Your task to perform on an android device: Open Reddit.com Image 0: 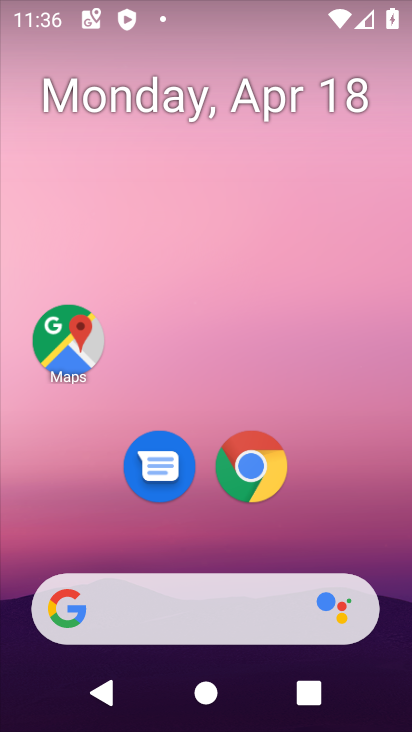
Step 0: drag from (223, 644) to (227, 120)
Your task to perform on an android device: Open Reddit.com Image 1: 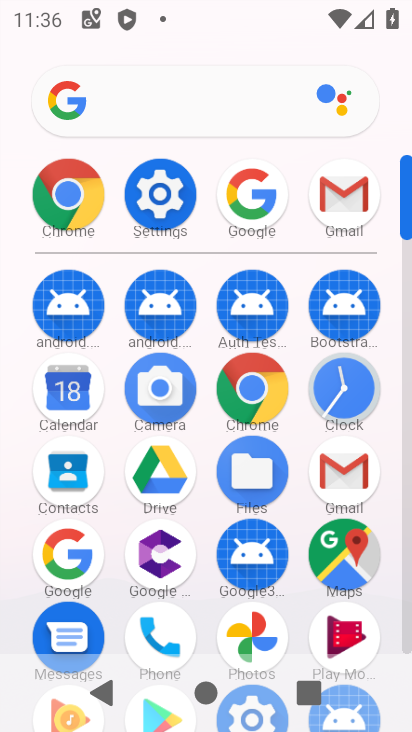
Step 1: click (75, 219)
Your task to perform on an android device: Open Reddit.com Image 2: 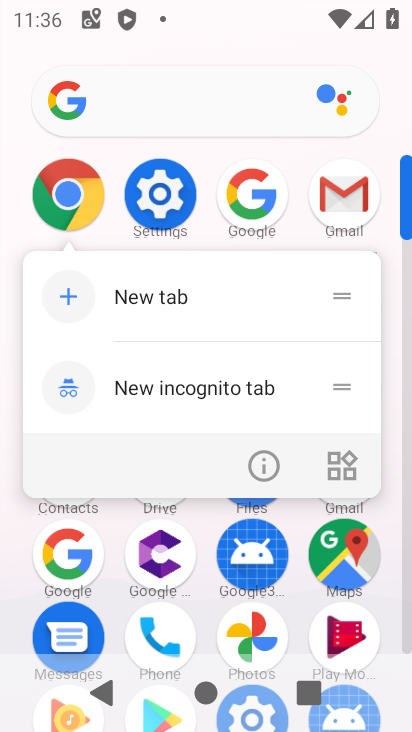
Step 2: click (90, 196)
Your task to perform on an android device: Open Reddit.com Image 3: 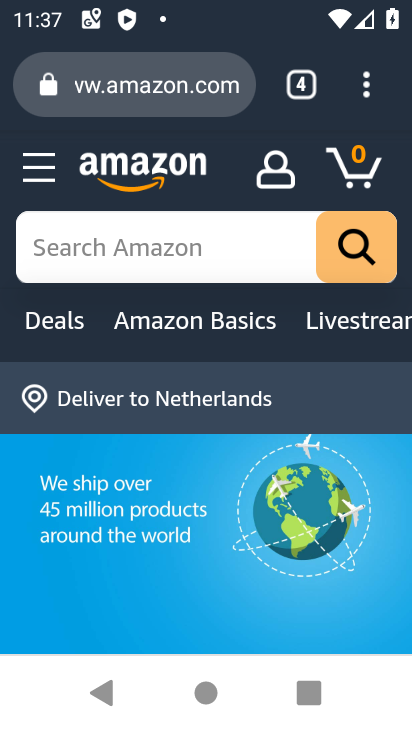
Step 3: click (176, 89)
Your task to perform on an android device: Open Reddit.com Image 4: 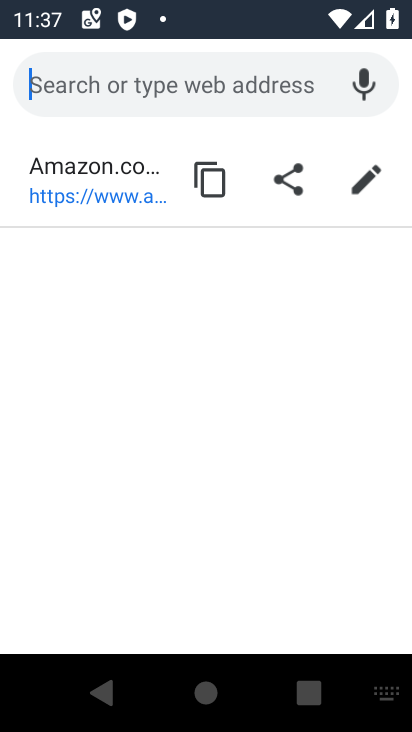
Step 4: type "reddit.com"
Your task to perform on an android device: Open Reddit.com Image 5: 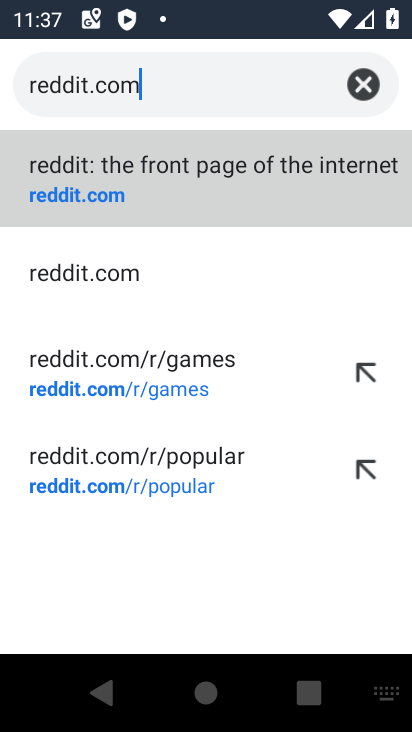
Step 5: click (185, 158)
Your task to perform on an android device: Open Reddit.com Image 6: 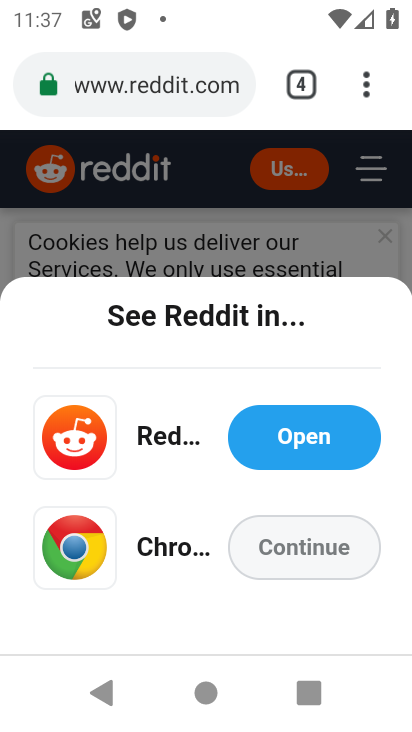
Step 6: click (350, 546)
Your task to perform on an android device: Open Reddit.com Image 7: 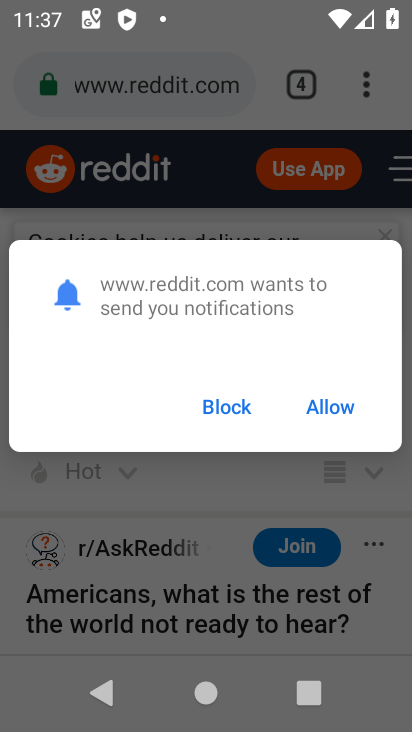
Step 7: click (218, 414)
Your task to perform on an android device: Open Reddit.com Image 8: 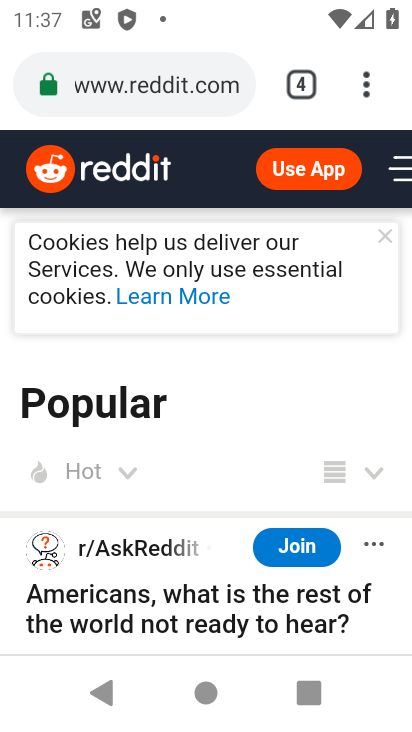
Step 8: task complete